Your task to perform on an android device: Find coffee shops on Maps Image 0: 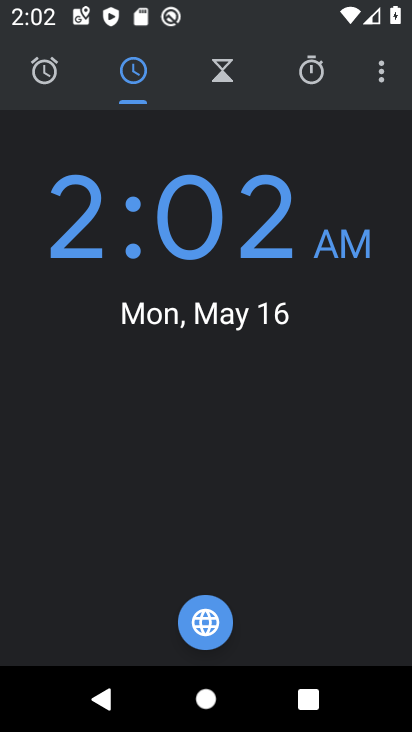
Step 0: press home button
Your task to perform on an android device: Find coffee shops on Maps Image 1: 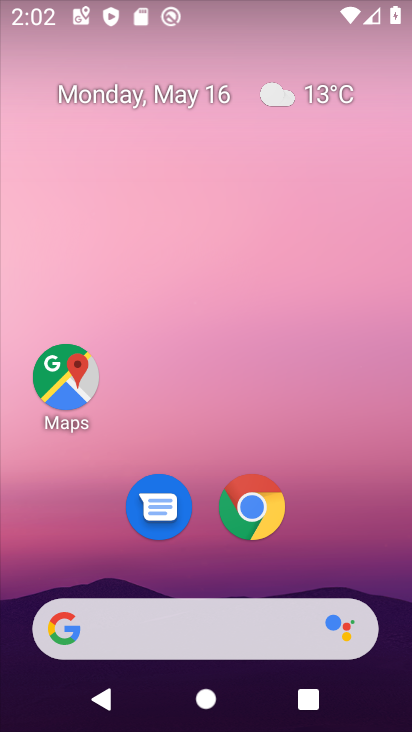
Step 1: drag from (389, 581) to (382, 113)
Your task to perform on an android device: Find coffee shops on Maps Image 2: 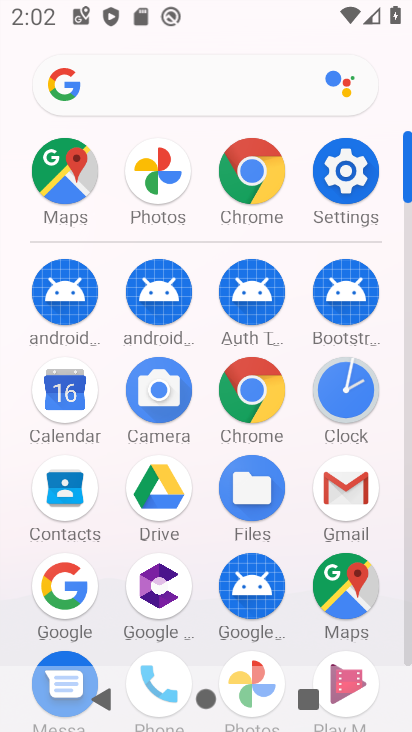
Step 2: click (349, 602)
Your task to perform on an android device: Find coffee shops on Maps Image 3: 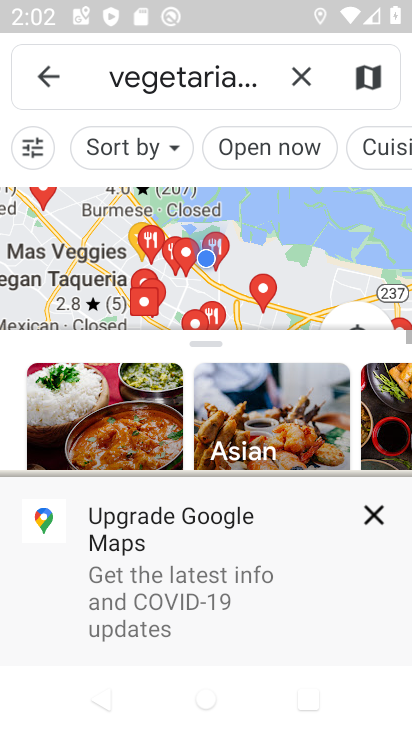
Step 3: click (295, 67)
Your task to perform on an android device: Find coffee shops on Maps Image 4: 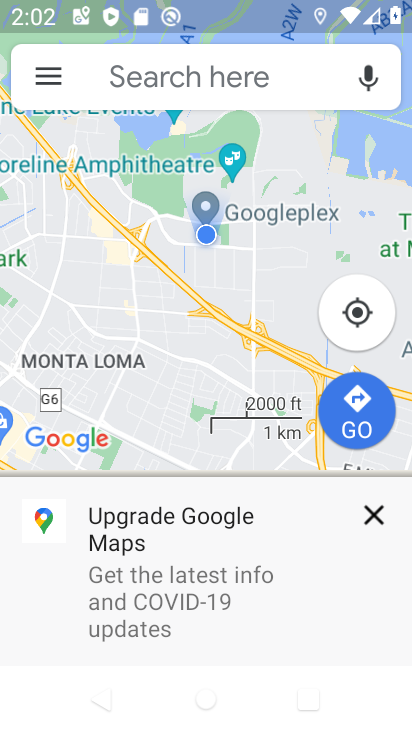
Step 4: click (274, 68)
Your task to perform on an android device: Find coffee shops on Maps Image 5: 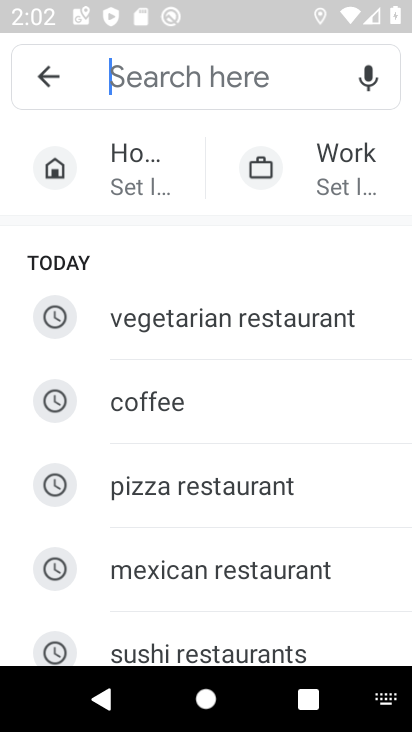
Step 5: type "coffee "
Your task to perform on an android device: Find coffee shops on Maps Image 6: 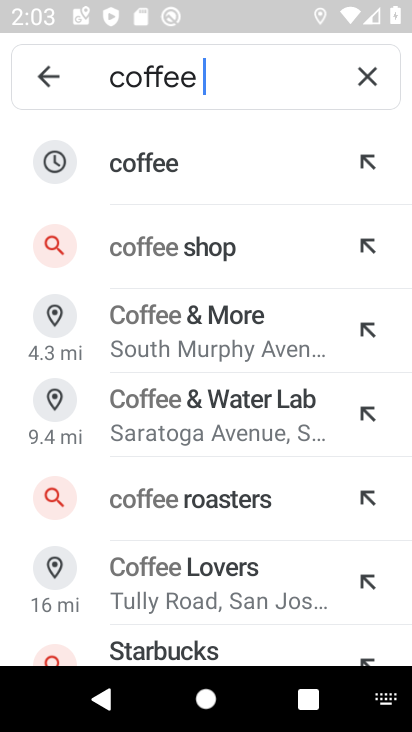
Step 6: click (160, 170)
Your task to perform on an android device: Find coffee shops on Maps Image 7: 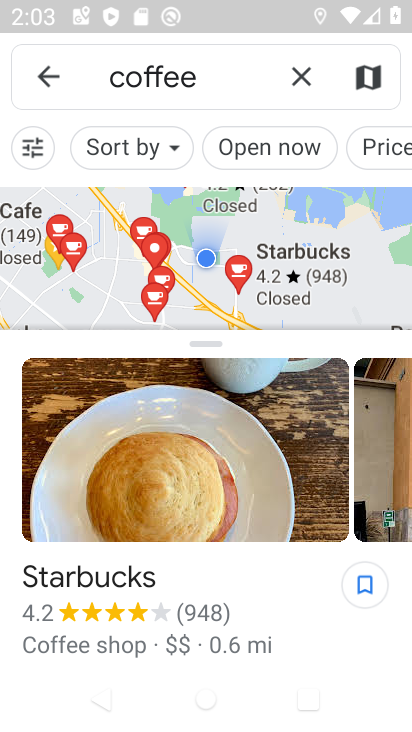
Step 7: task complete